Your task to perform on an android device: Open Google Chrome Image 0: 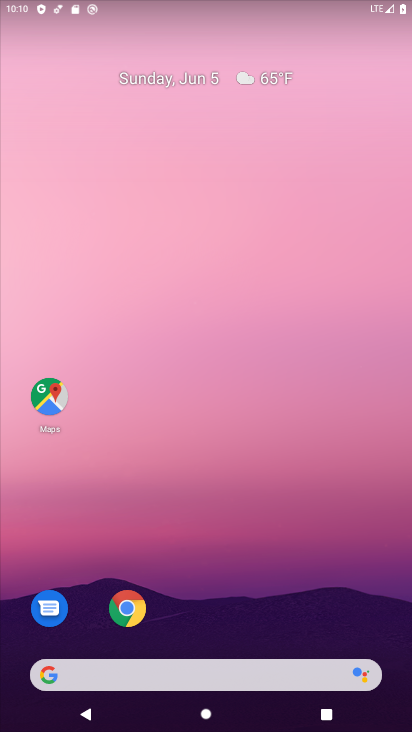
Step 0: click (123, 609)
Your task to perform on an android device: Open Google Chrome Image 1: 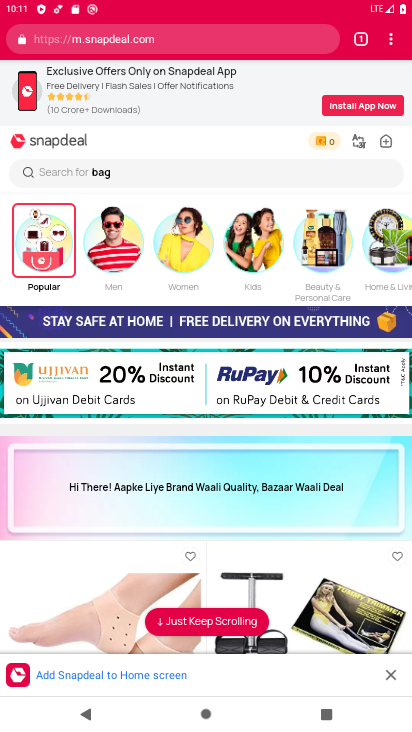
Step 1: task complete